Your task to perform on an android device: turn off location Image 0: 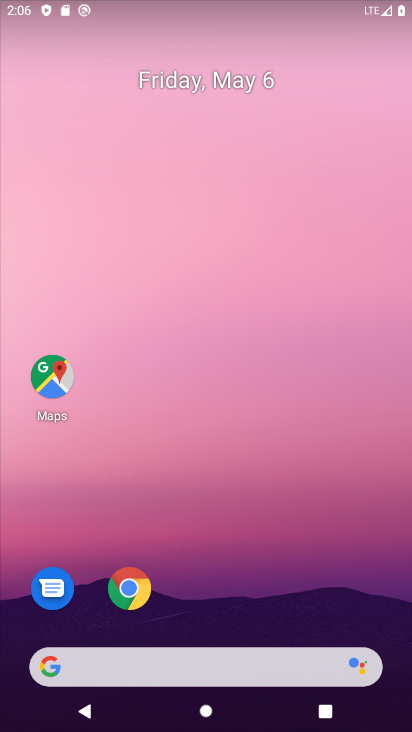
Step 0: drag from (378, 587) to (377, 173)
Your task to perform on an android device: turn off location Image 1: 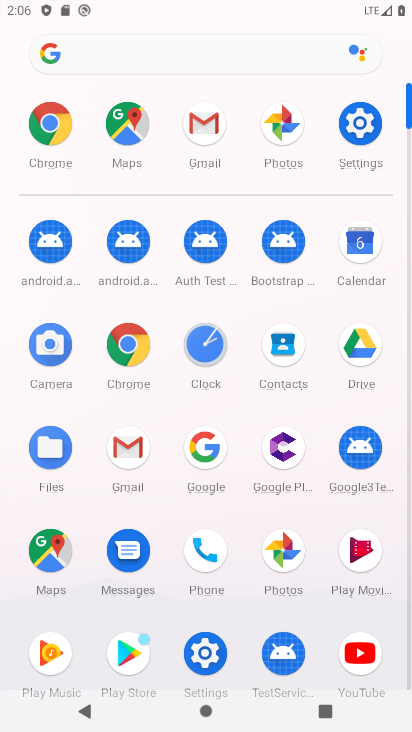
Step 1: click (377, 131)
Your task to perform on an android device: turn off location Image 2: 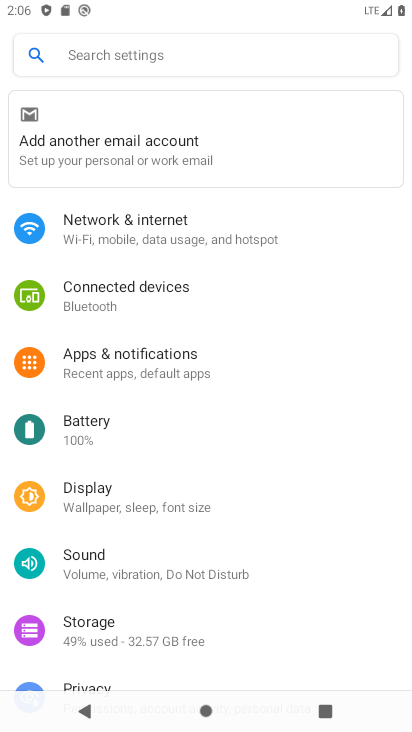
Step 2: drag from (159, 563) to (251, 380)
Your task to perform on an android device: turn off location Image 3: 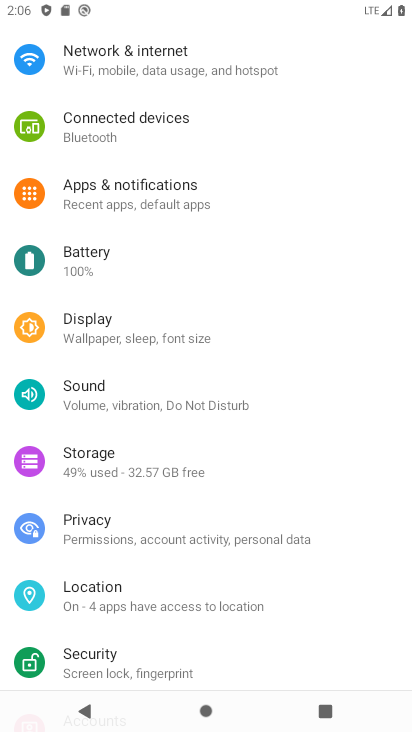
Step 3: click (159, 584)
Your task to perform on an android device: turn off location Image 4: 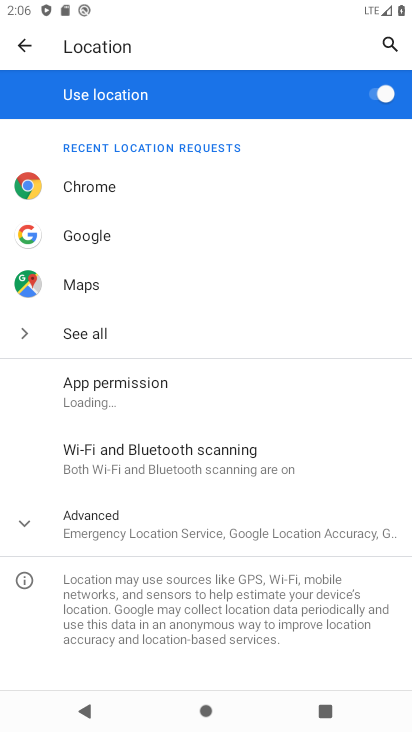
Step 4: click (373, 99)
Your task to perform on an android device: turn off location Image 5: 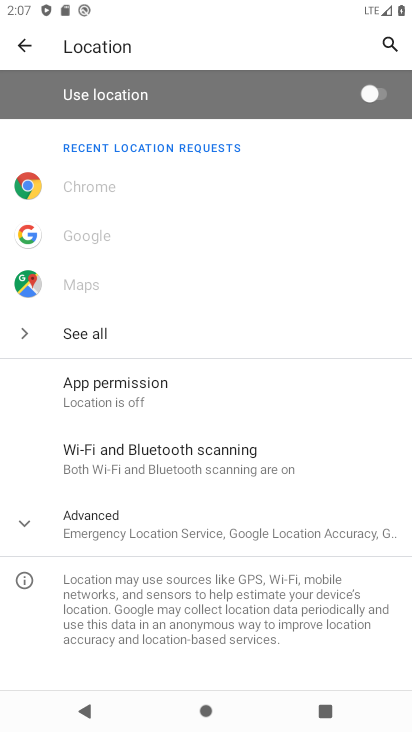
Step 5: task complete